Your task to perform on an android device: turn off javascript in the chrome app Image 0: 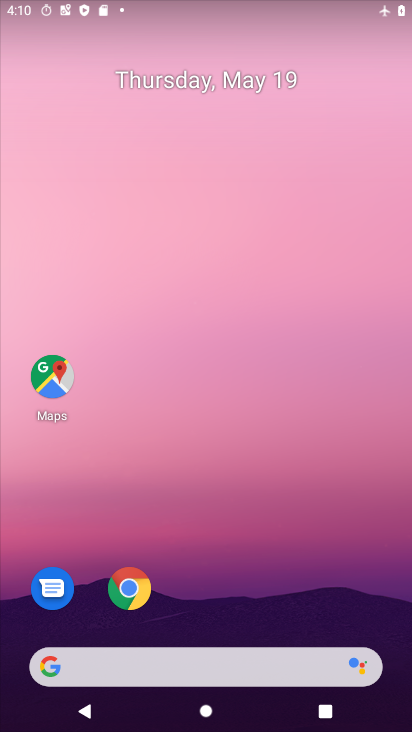
Step 0: click (143, 589)
Your task to perform on an android device: turn off javascript in the chrome app Image 1: 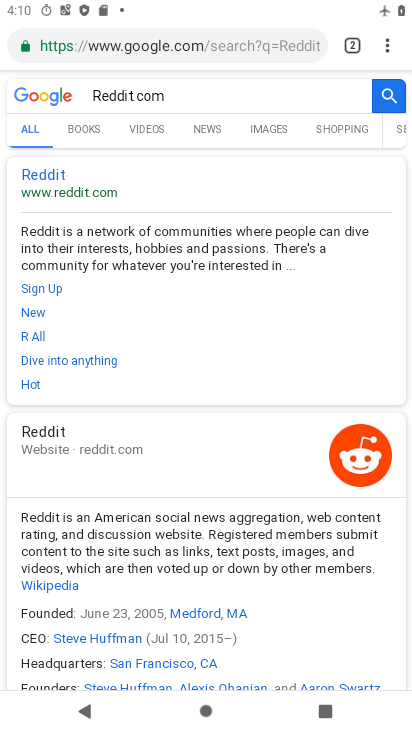
Step 1: click (388, 43)
Your task to perform on an android device: turn off javascript in the chrome app Image 2: 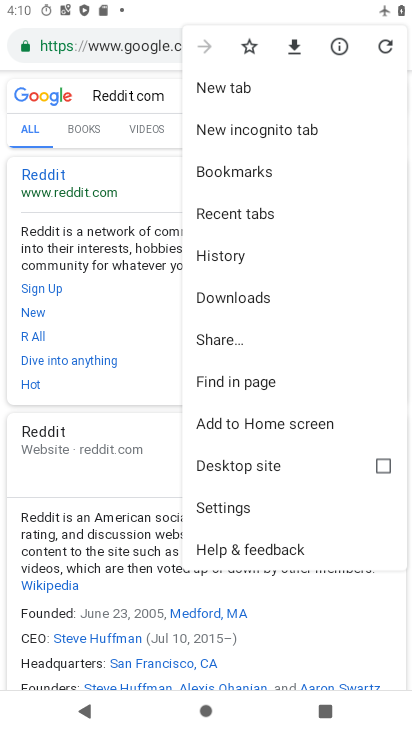
Step 2: click (241, 505)
Your task to perform on an android device: turn off javascript in the chrome app Image 3: 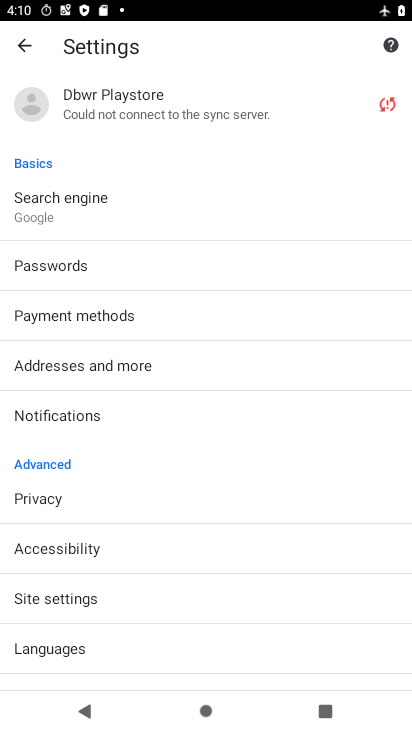
Step 3: click (93, 604)
Your task to perform on an android device: turn off javascript in the chrome app Image 4: 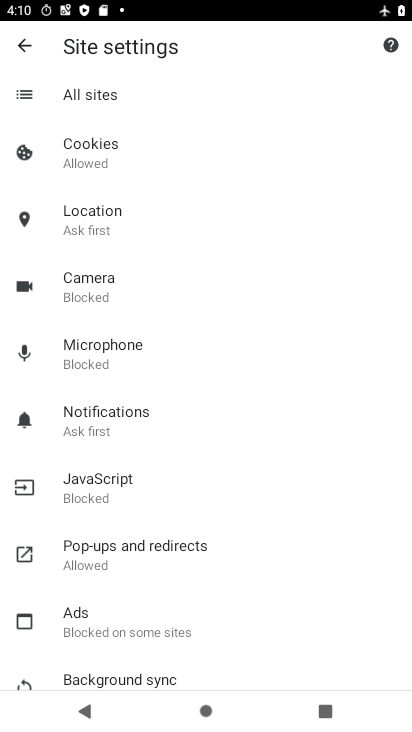
Step 4: click (114, 491)
Your task to perform on an android device: turn off javascript in the chrome app Image 5: 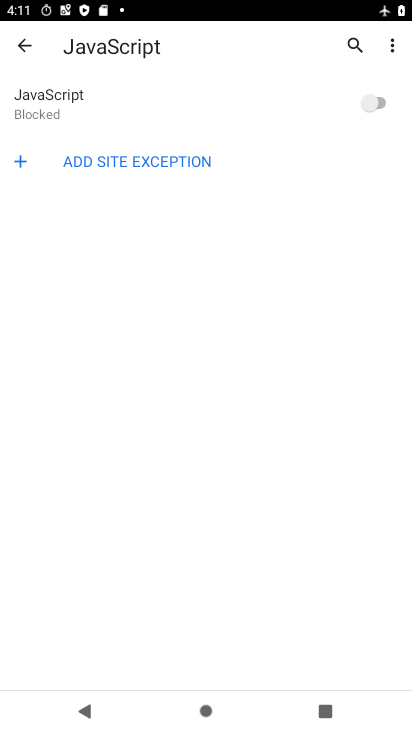
Step 5: task complete